Your task to perform on an android device: Open Wikipedia Image 0: 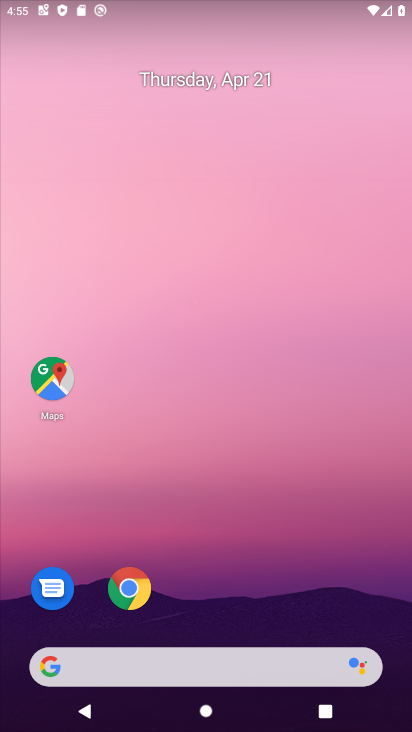
Step 0: click (325, 7)
Your task to perform on an android device: Open Wikipedia Image 1: 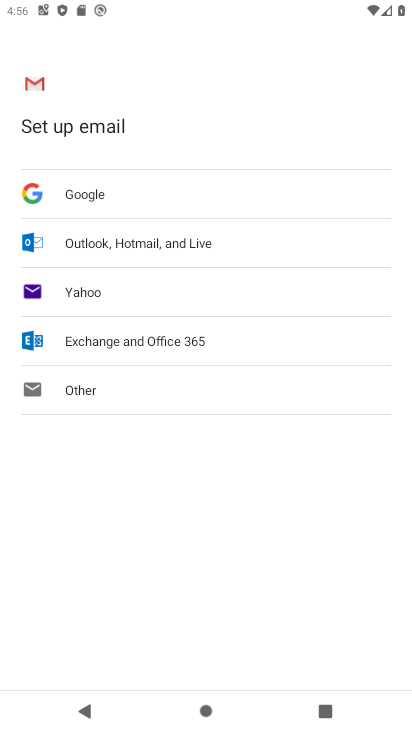
Step 1: press back button
Your task to perform on an android device: Open Wikipedia Image 2: 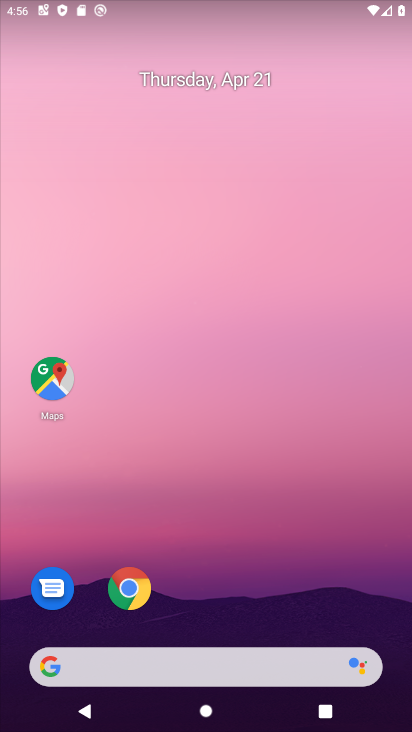
Step 2: click (143, 585)
Your task to perform on an android device: Open Wikipedia Image 3: 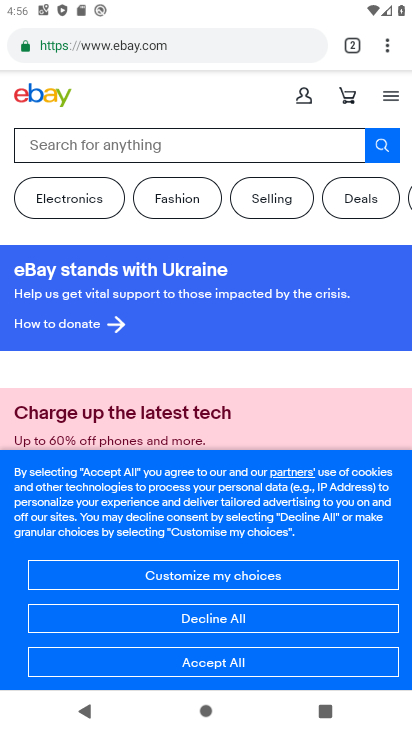
Step 3: click (353, 37)
Your task to perform on an android device: Open Wikipedia Image 4: 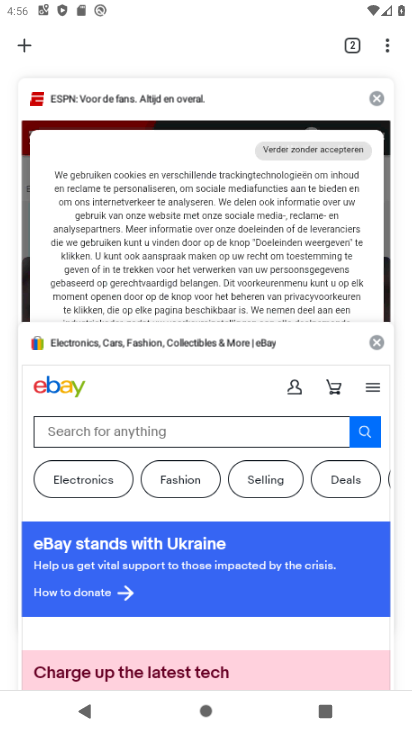
Step 4: click (18, 48)
Your task to perform on an android device: Open Wikipedia Image 5: 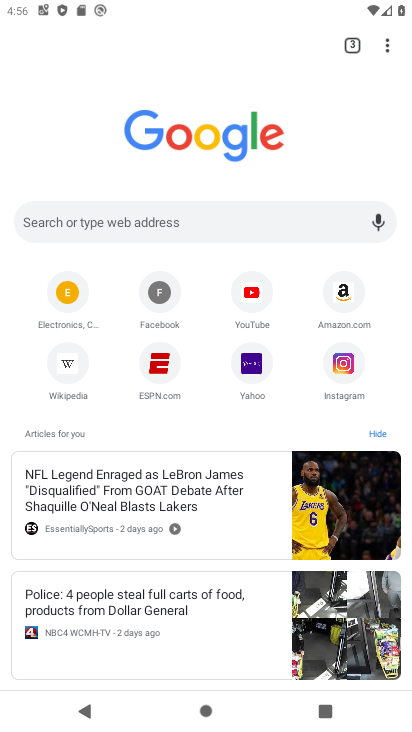
Step 5: click (79, 368)
Your task to perform on an android device: Open Wikipedia Image 6: 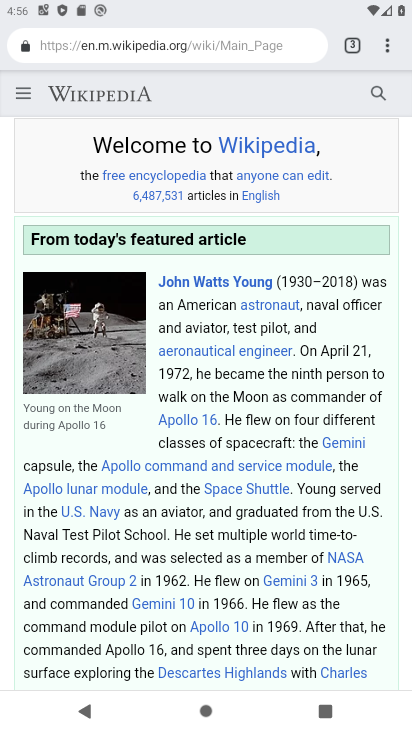
Step 6: task complete